Your task to perform on an android device: Open CNN.com Image 0: 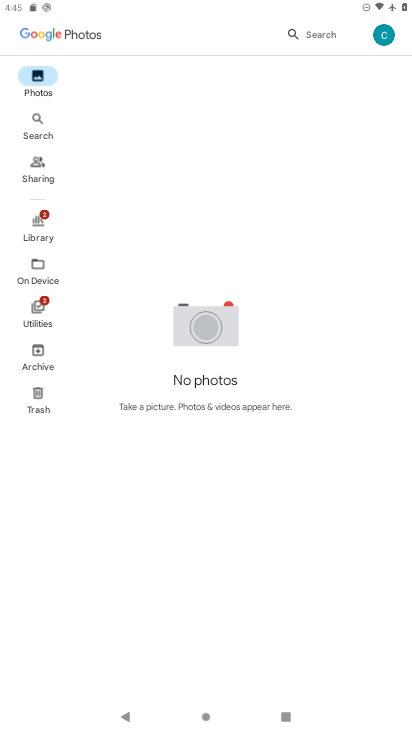
Step 0: press home button
Your task to perform on an android device: Open CNN.com Image 1: 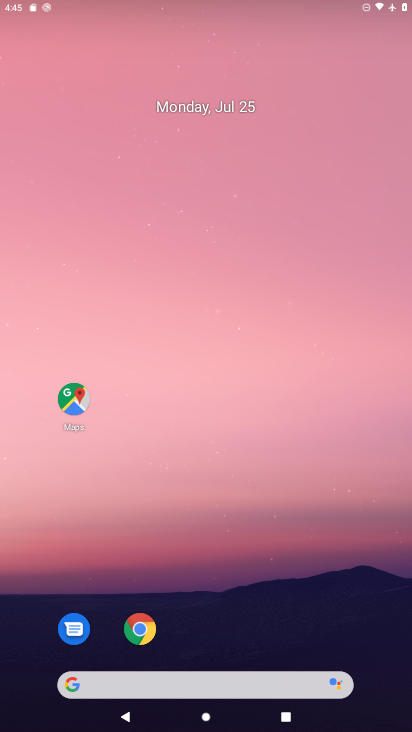
Step 1: drag from (292, 566) to (371, 8)
Your task to perform on an android device: Open CNN.com Image 2: 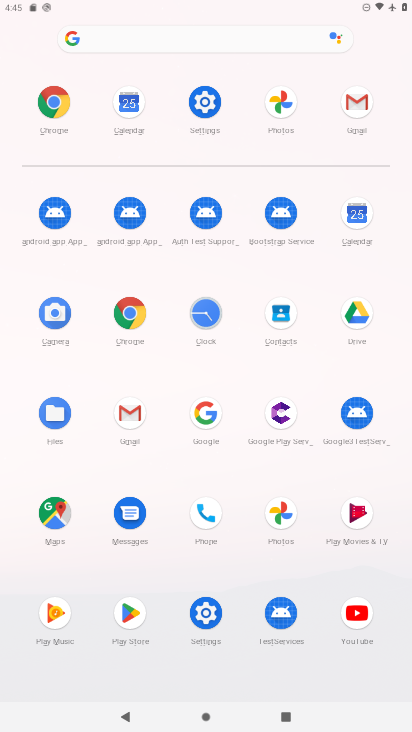
Step 2: click (112, 314)
Your task to perform on an android device: Open CNN.com Image 3: 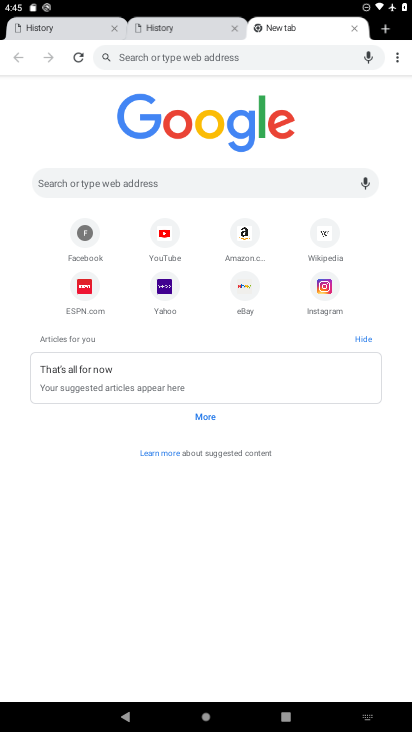
Step 3: click (219, 51)
Your task to perform on an android device: Open CNN.com Image 4: 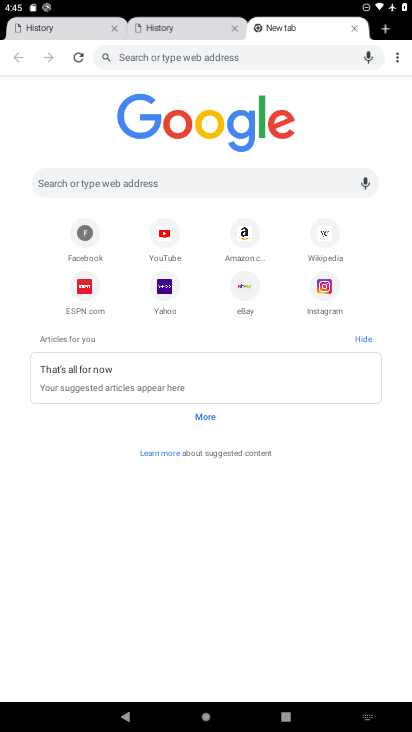
Step 4: click (220, 51)
Your task to perform on an android device: Open CNN.com Image 5: 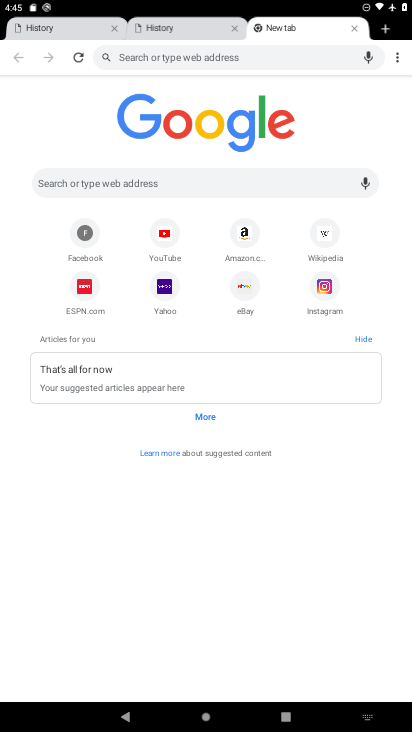
Step 5: type "cnn.com"
Your task to perform on an android device: Open CNN.com Image 6: 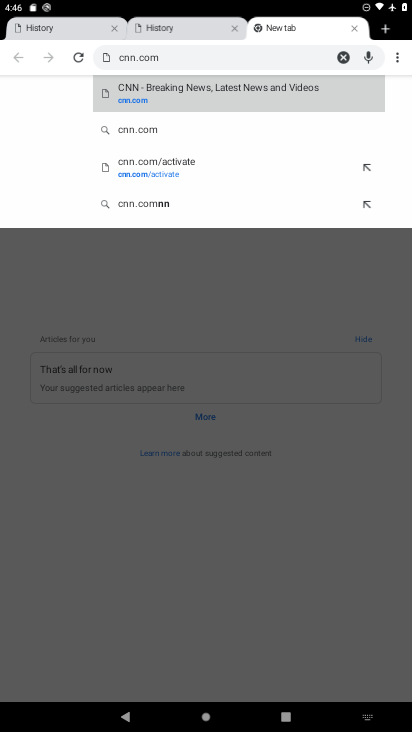
Step 6: click (320, 94)
Your task to perform on an android device: Open CNN.com Image 7: 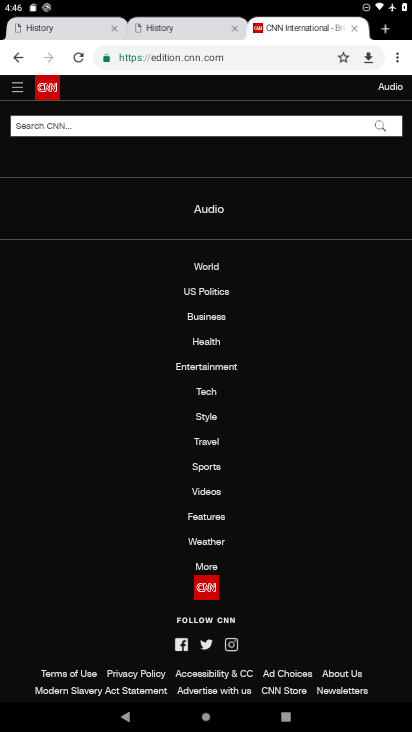
Step 7: task complete